Your task to perform on an android device: set an alarm Image 0: 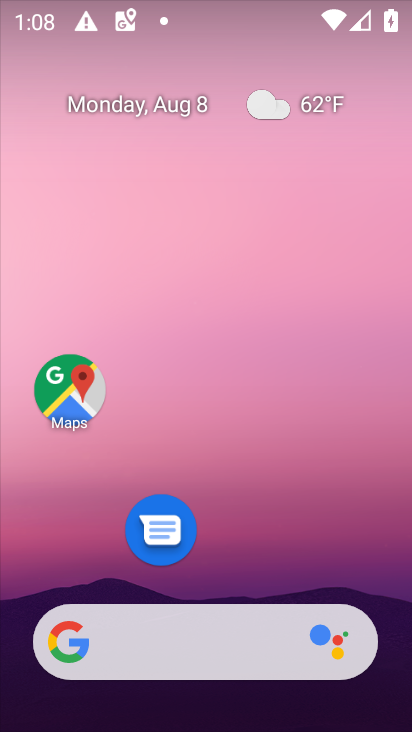
Step 0: drag from (220, 587) to (212, 93)
Your task to perform on an android device: set an alarm Image 1: 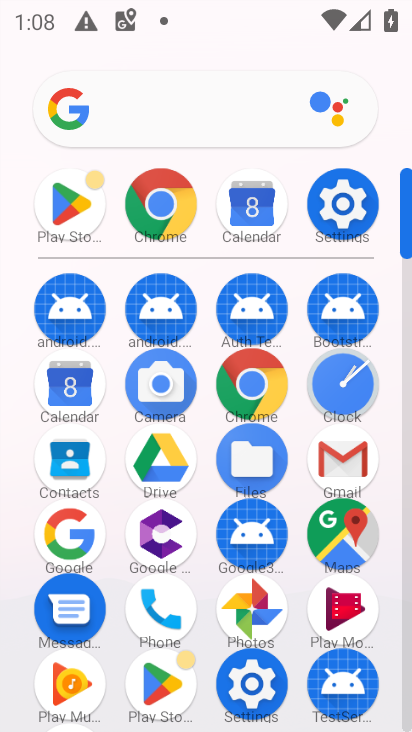
Step 1: click (345, 377)
Your task to perform on an android device: set an alarm Image 2: 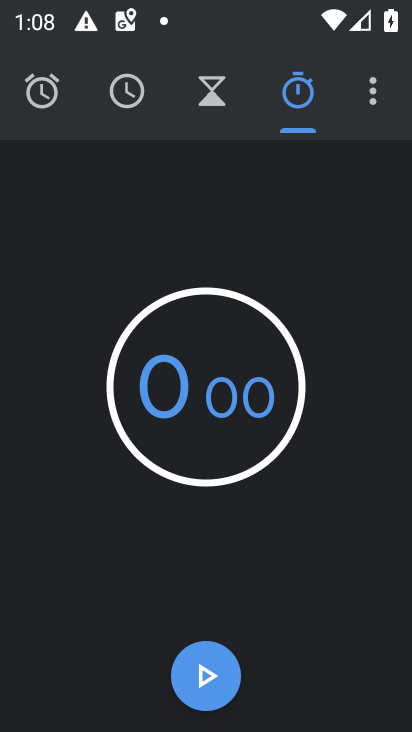
Step 2: click (33, 85)
Your task to perform on an android device: set an alarm Image 3: 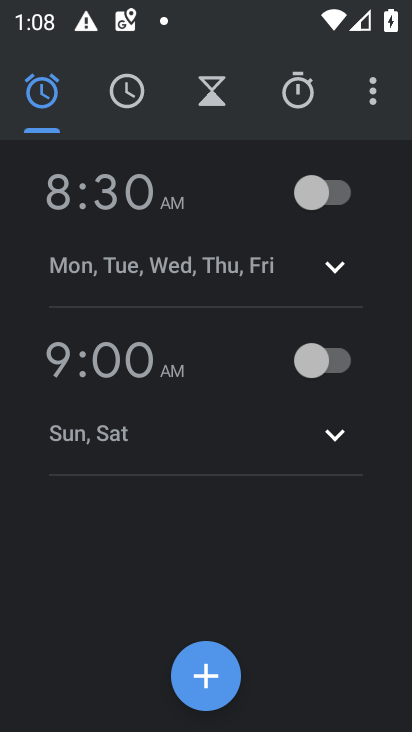
Step 3: click (212, 678)
Your task to perform on an android device: set an alarm Image 4: 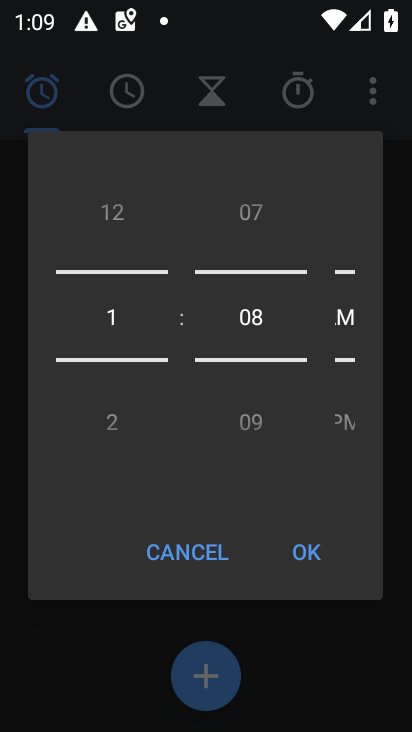
Step 4: drag from (246, 415) to (248, 293)
Your task to perform on an android device: set an alarm Image 5: 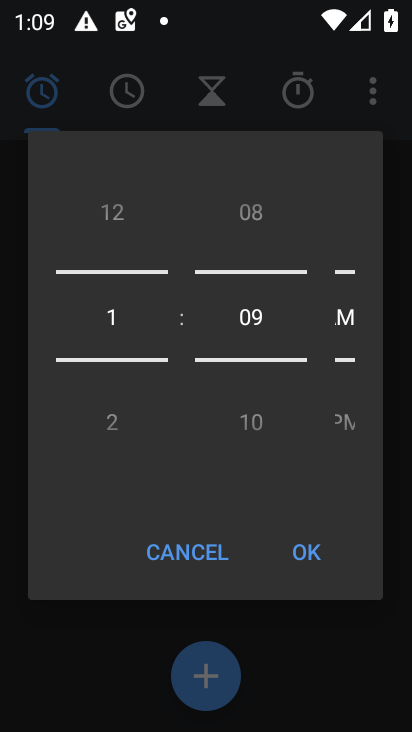
Step 5: drag from (121, 422) to (120, 241)
Your task to perform on an android device: set an alarm Image 6: 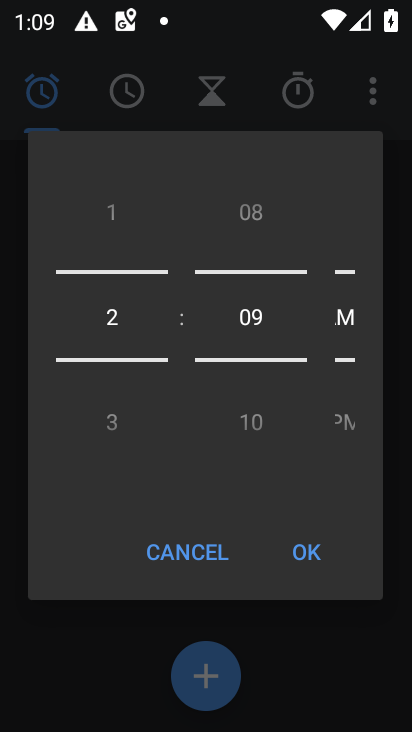
Step 6: click (315, 548)
Your task to perform on an android device: set an alarm Image 7: 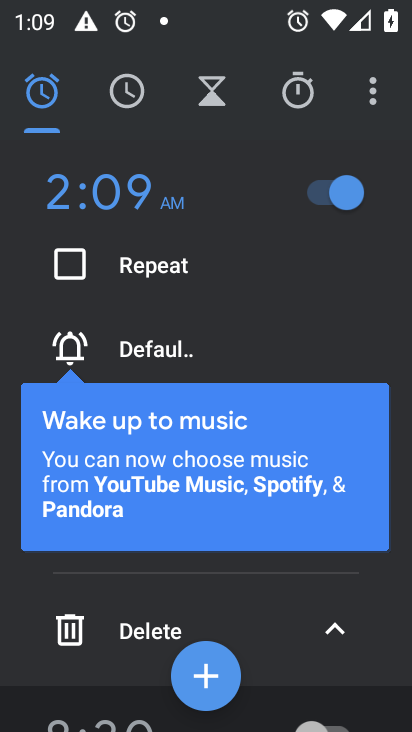
Step 7: task complete